Your task to perform on an android device: Clear the shopping cart on amazon. Search for "jbl charge 4" on amazon, select the first entry, add it to the cart, then select checkout. Image 0: 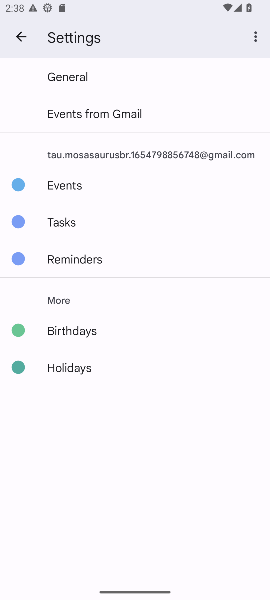
Step 0: press home button
Your task to perform on an android device: Clear the shopping cart on amazon. Search for "jbl charge 4" on amazon, select the first entry, add it to the cart, then select checkout. Image 1: 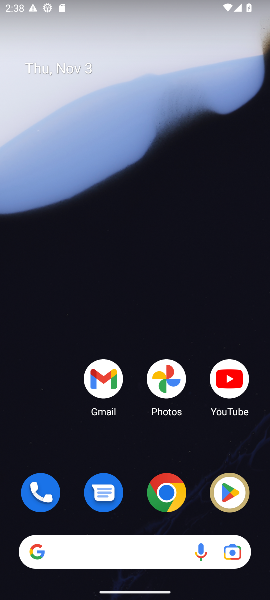
Step 1: click (171, 489)
Your task to perform on an android device: Clear the shopping cart on amazon. Search for "jbl charge 4" on amazon, select the first entry, add it to the cart, then select checkout. Image 2: 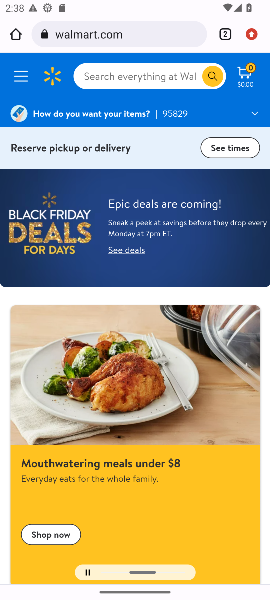
Step 2: click (127, 80)
Your task to perform on an android device: Clear the shopping cart on amazon. Search for "jbl charge 4" on amazon, select the first entry, add it to the cart, then select checkout. Image 3: 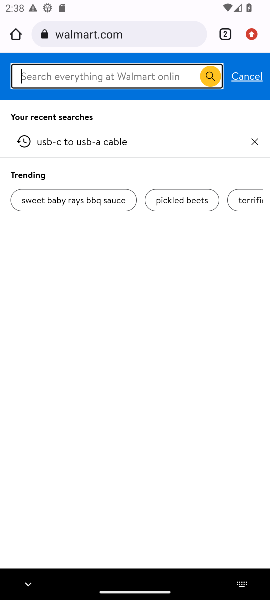
Step 3: type "amazon"
Your task to perform on an android device: Clear the shopping cart on amazon. Search for "jbl charge 4" on amazon, select the first entry, add it to the cart, then select checkout. Image 4: 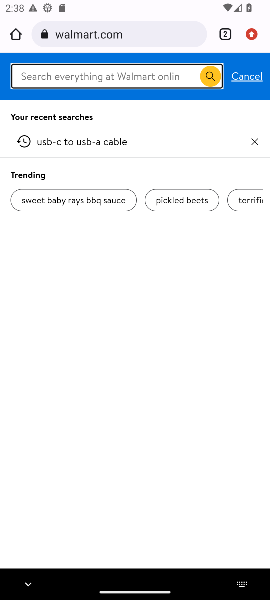
Step 4: type ""
Your task to perform on an android device: Clear the shopping cart on amazon. Search for "jbl charge 4" on amazon, select the first entry, add it to the cart, then select checkout. Image 5: 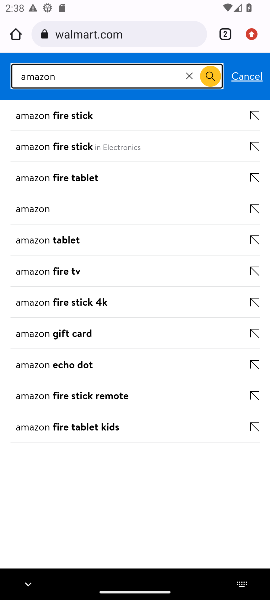
Step 5: click (212, 86)
Your task to perform on an android device: Clear the shopping cart on amazon. Search for "jbl charge 4" on amazon, select the first entry, add it to the cart, then select checkout. Image 6: 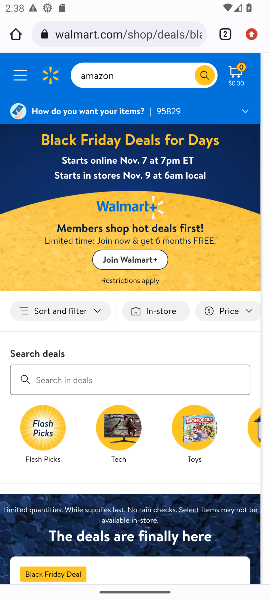
Step 6: click (135, 27)
Your task to perform on an android device: Clear the shopping cart on amazon. Search for "jbl charge 4" on amazon, select the first entry, add it to the cart, then select checkout. Image 7: 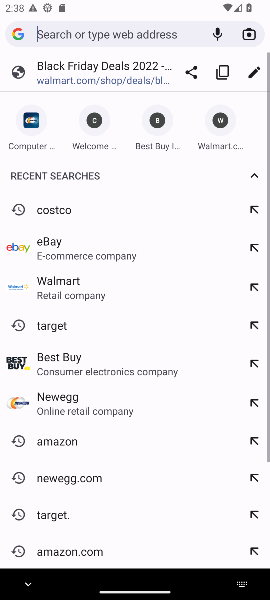
Step 7: type "amazon"
Your task to perform on an android device: Clear the shopping cart on amazon. Search for "jbl charge 4" on amazon, select the first entry, add it to the cart, then select checkout. Image 8: 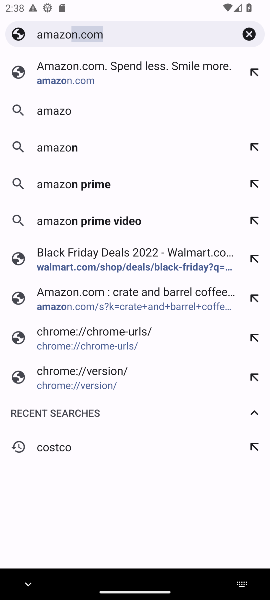
Step 8: type ""
Your task to perform on an android device: Clear the shopping cart on amazon. Search for "jbl charge 4" on amazon, select the first entry, add it to the cart, then select checkout. Image 9: 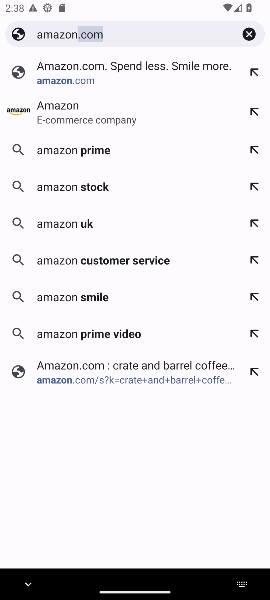
Step 9: click (124, 76)
Your task to perform on an android device: Clear the shopping cart on amazon. Search for "jbl charge 4" on amazon, select the first entry, add it to the cart, then select checkout. Image 10: 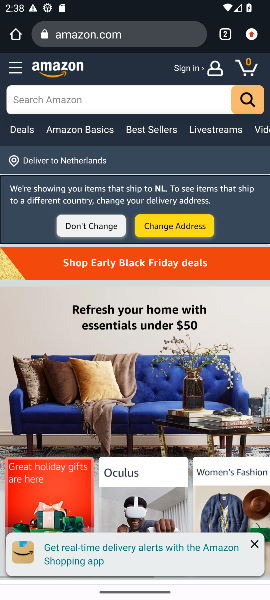
Step 10: click (161, 107)
Your task to perform on an android device: Clear the shopping cart on amazon. Search for "jbl charge 4" on amazon, select the first entry, add it to the cart, then select checkout. Image 11: 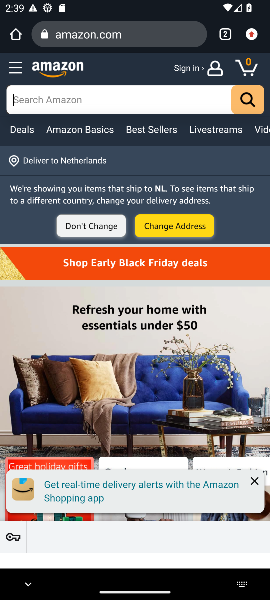
Step 11: type "jbl charge 4"
Your task to perform on an android device: Clear the shopping cart on amazon. Search for "jbl charge 4" on amazon, select the first entry, add it to the cart, then select checkout. Image 12: 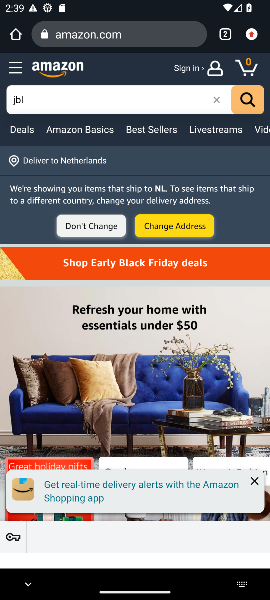
Step 12: type ""
Your task to perform on an android device: Clear the shopping cart on amazon. Search for "jbl charge 4" on amazon, select the first entry, add it to the cart, then select checkout. Image 13: 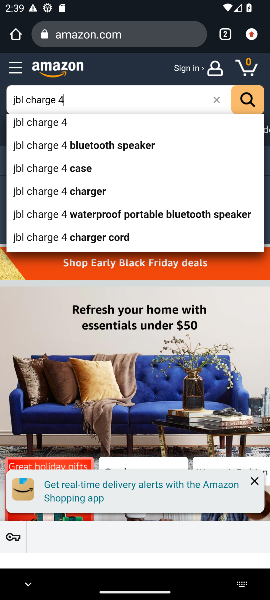
Step 13: click (63, 116)
Your task to perform on an android device: Clear the shopping cart on amazon. Search for "jbl charge 4" on amazon, select the first entry, add it to the cart, then select checkout. Image 14: 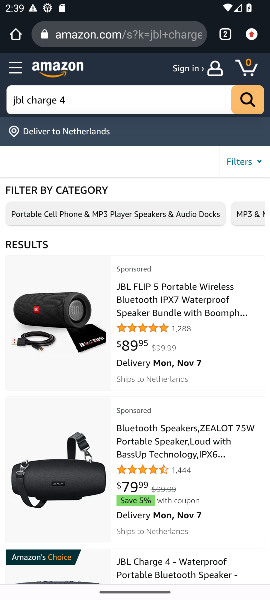
Step 14: drag from (204, 548) to (233, 316)
Your task to perform on an android device: Clear the shopping cart on amazon. Search for "jbl charge 4" on amazon, select the first entry, add it to the cart, then select checkout. Image 15: 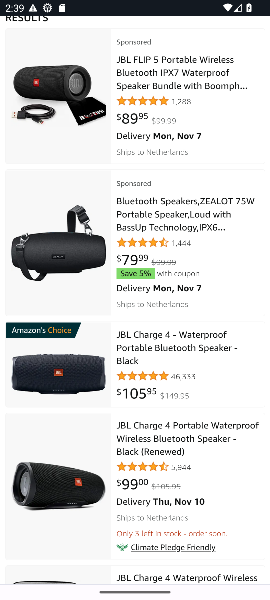
Step 15: click (178, 357)
Your task to perform on an android device: Clear the shopping cart on amazon. Search for "jbl charge 4" on amazon, select the first entry, add it to the cart, then select checkout. Image 16: 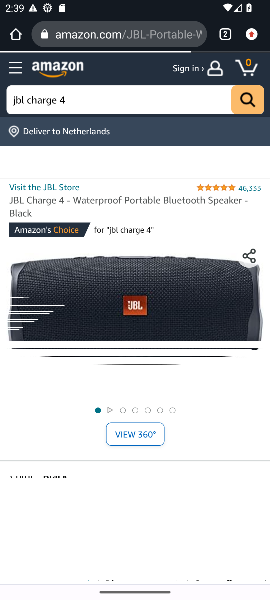
Step 16: drag from (163, 513) to (205, 232)
Your task to perform on an android device: Clear the shopping cart on amazon. Search for "jbl charge 4" on amazon, select the first entry, add it to the cart, then select checkout. Image 17: 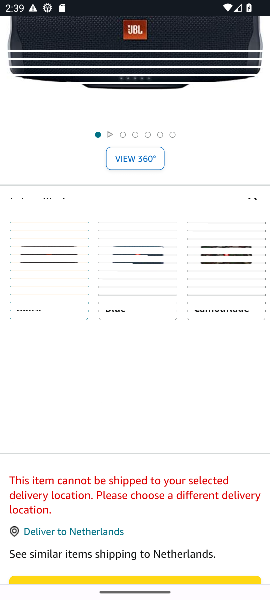
Step 17: click (168, 270)
Your task to perform on an android device: Clear the shopping cart on amazon. Search for "jbl charge 4" on amazon, select the first entry, add it to the cart, then select checkout. Image 18: 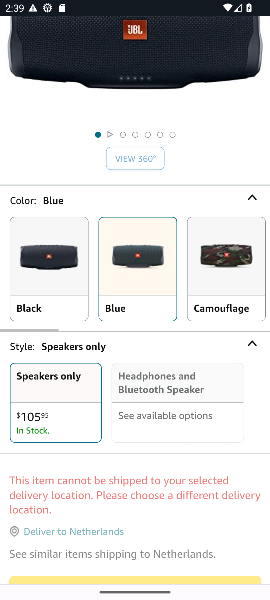
Step 18: click (205, 270)
Your task to perform on an android device: Clear the shopping cart on amazon. Search for "jbl charge 4" on amazon, select the first entry, add it to the cart, then select checkout. Image 19: 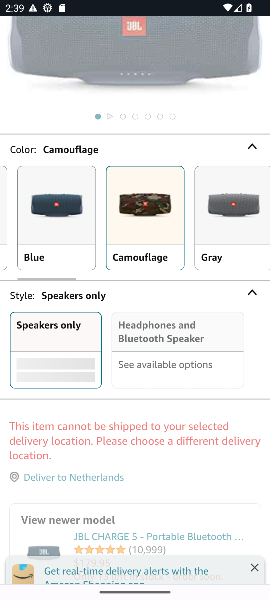
Step 19: task complete